Your task to perform on an android device: Add "alienware aurora" to the cart on target.com Image 0: 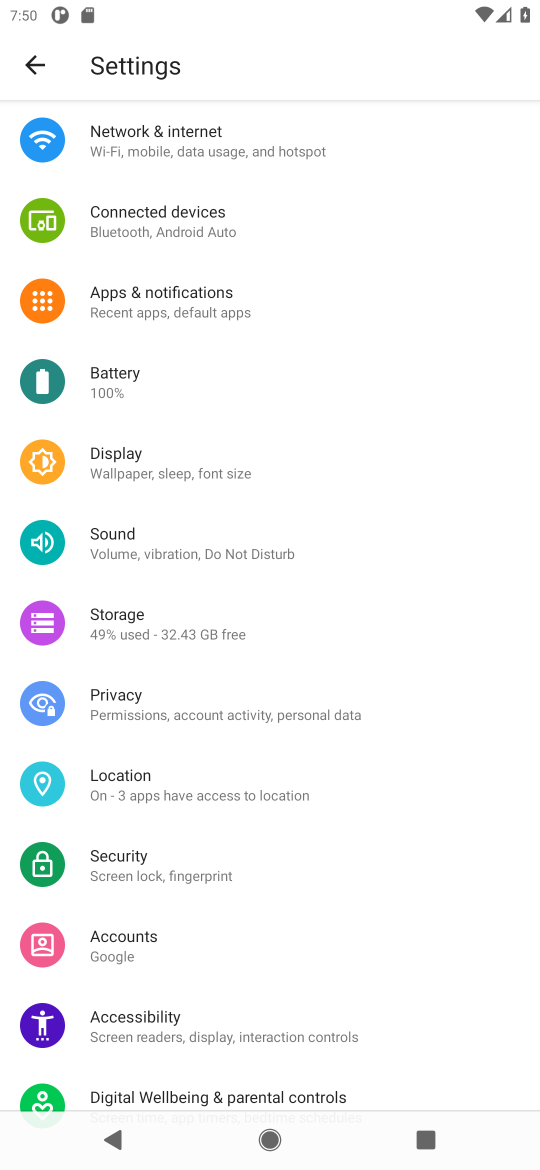
Step 0: press home button
Your task to perform on an android device: Add "alienware aurora" to the cart on target.com Image 1: 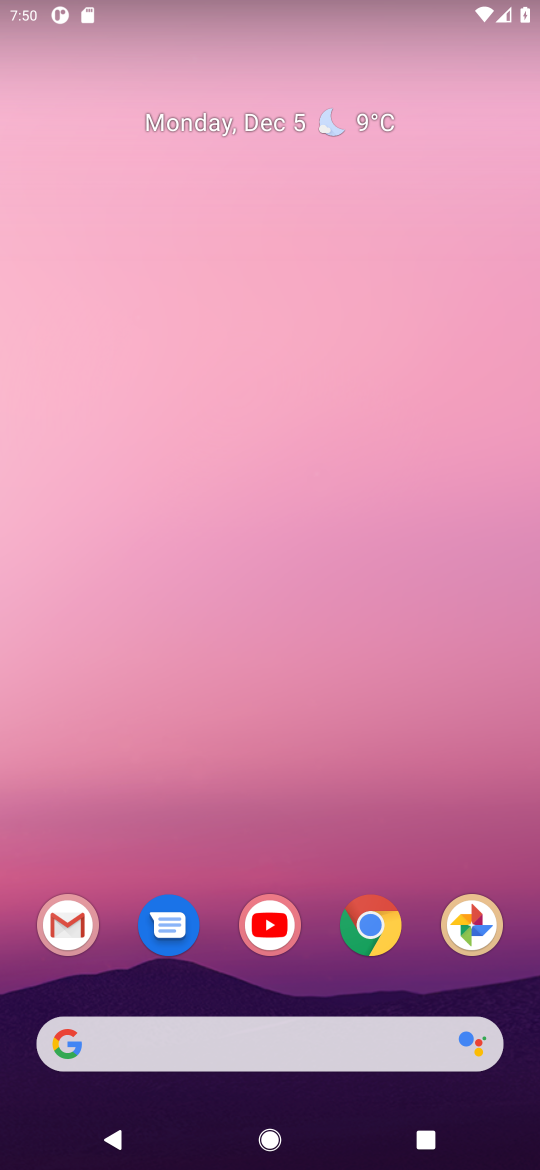
Step 1: click (378, 933)
Your task to perform on an android device: Add "alienware aurora" to the cart on target.com Image 2: 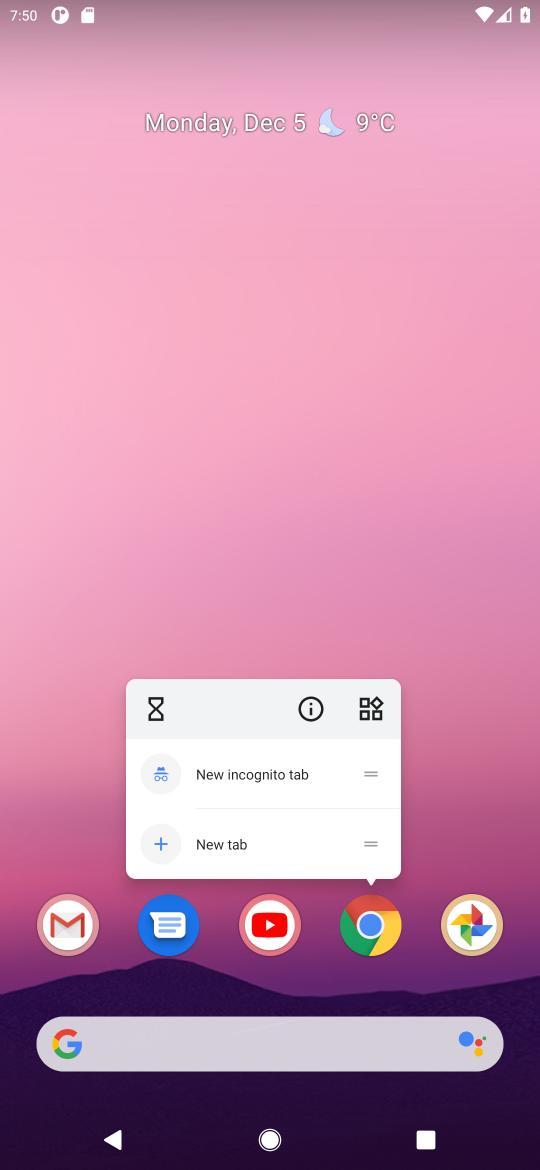
Step 2: click (378, 933)
Your task to perform on an android device: Add "alienware aurora" to the cart on target.com Image 3: 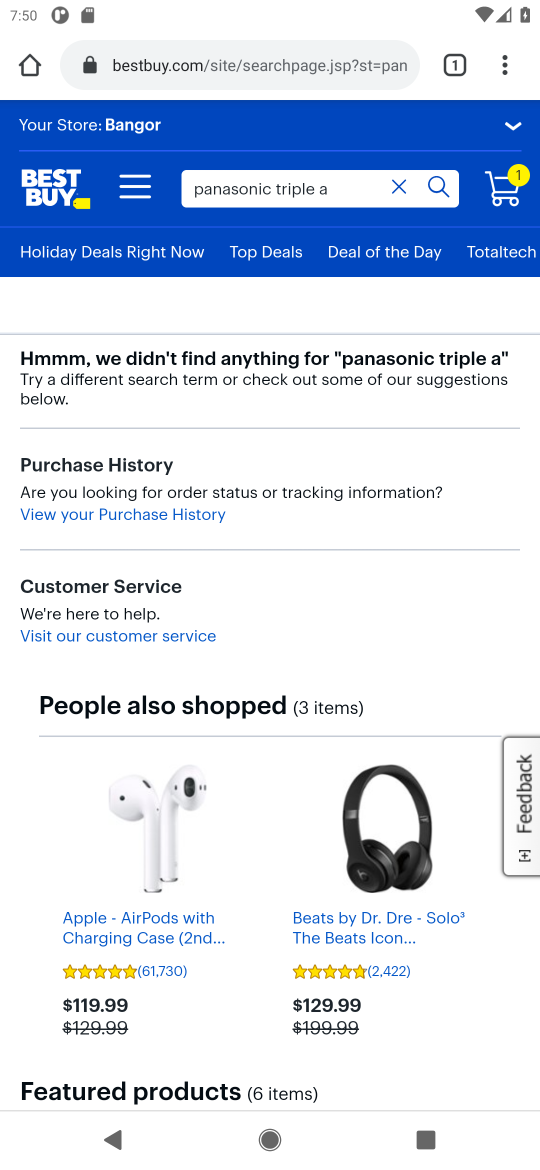
Step 3: click (274, 62)
Your task to perform on an android device: Add "alienware aurora" to the cart on target.com Image 4: 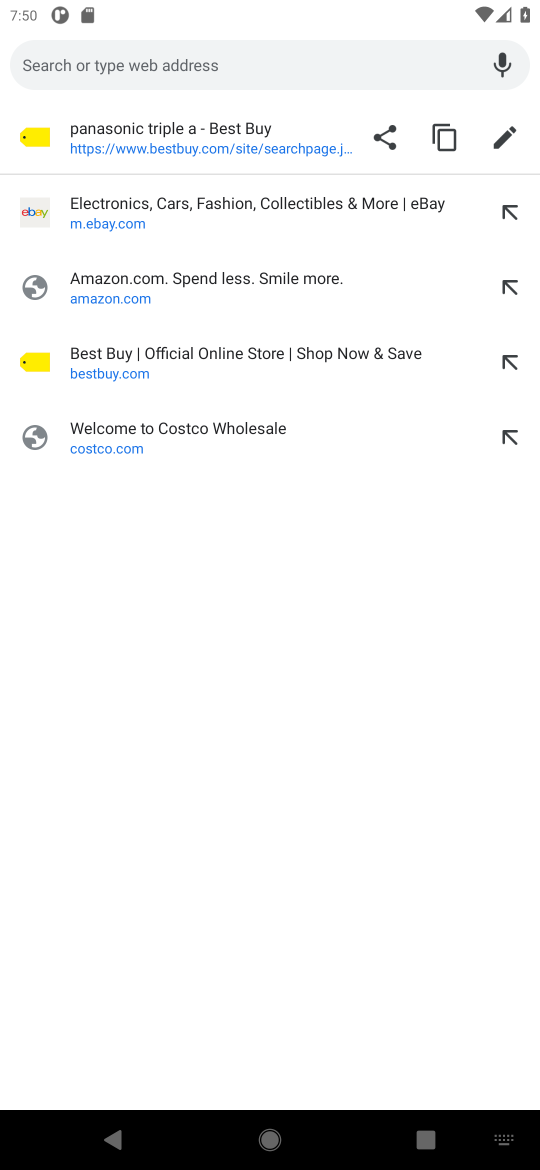
Step 4: type "target.com"
Your task to perform on an android device: Add "alienware aurora" to the cart on target.com Image 5: 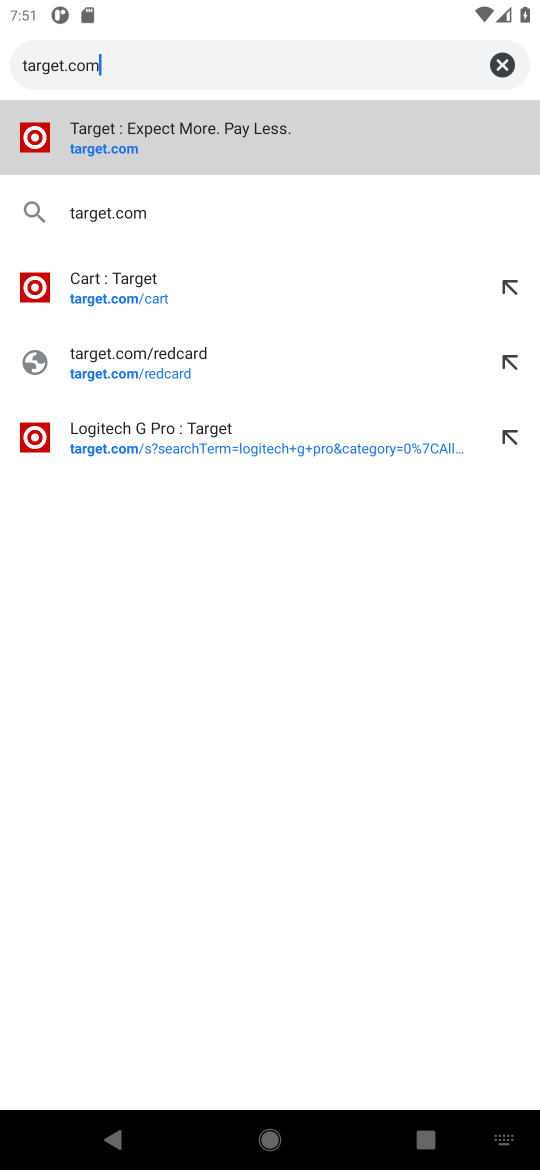
Step 5: click (102, 152)
Your task to perform on an android device: Add "alienware aurora" to the cart on target.com Image 6: 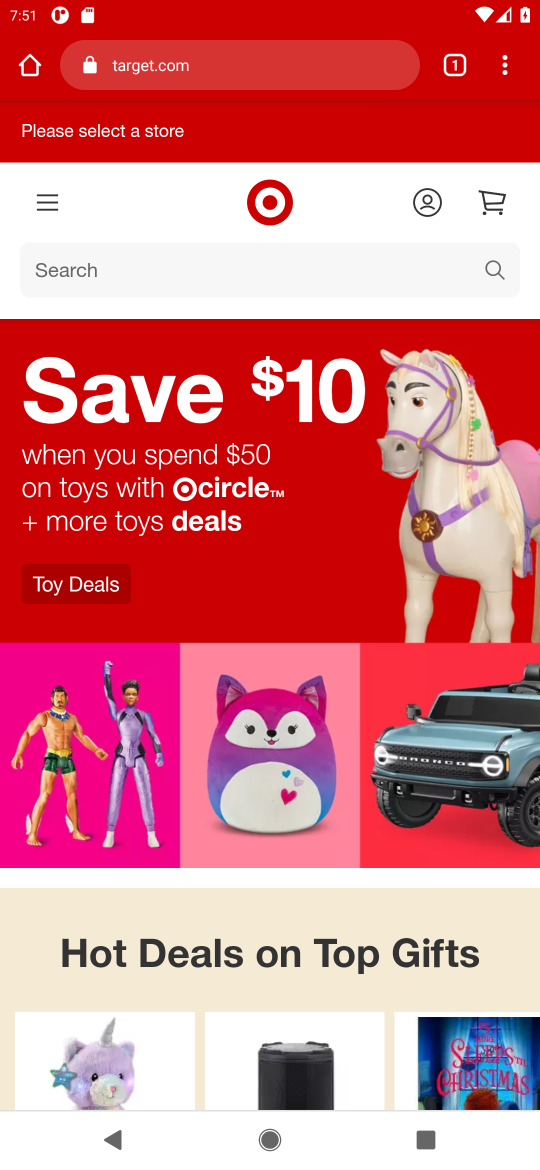
Step 6: click (57, 276)
Your task to perform on an android device: Add "alienware aurora" to the cart on target.com Image 7: 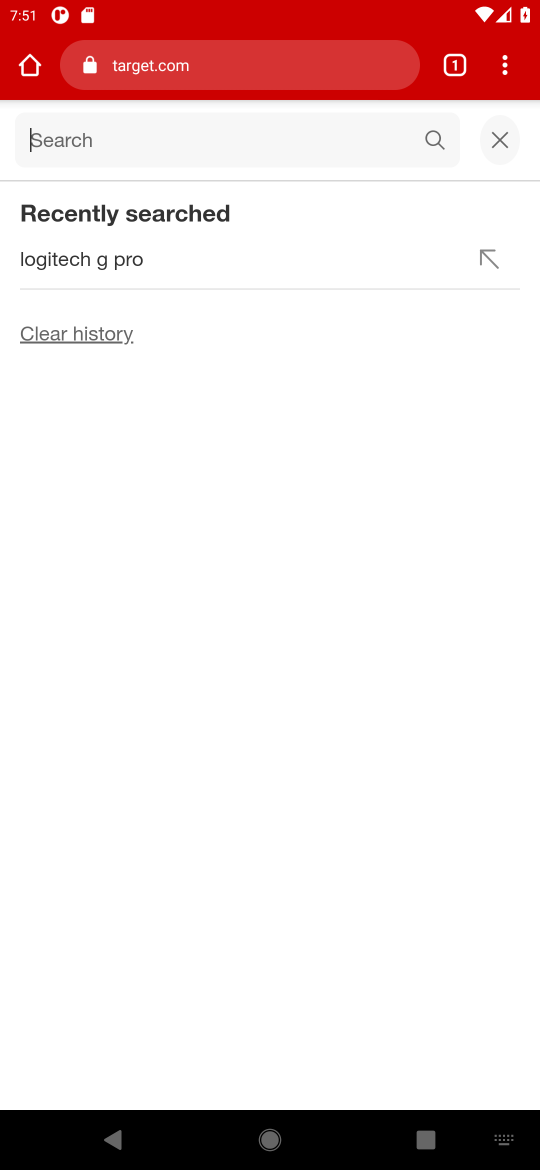
Step 7: type "alienware aurora"
Your task to perform on an android device: Add "alienware aurora" to the cart on target.com Image 8: 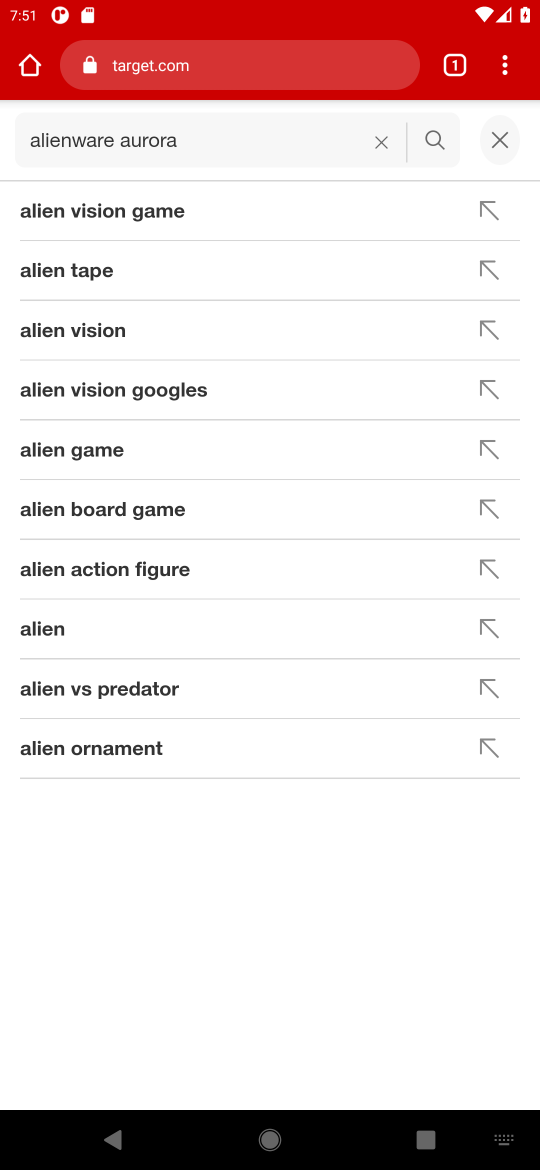
Step 8: click (432, 145)
Your task to perform on an android device: Add "alienware aurora" to the cart on target.com Image 9: 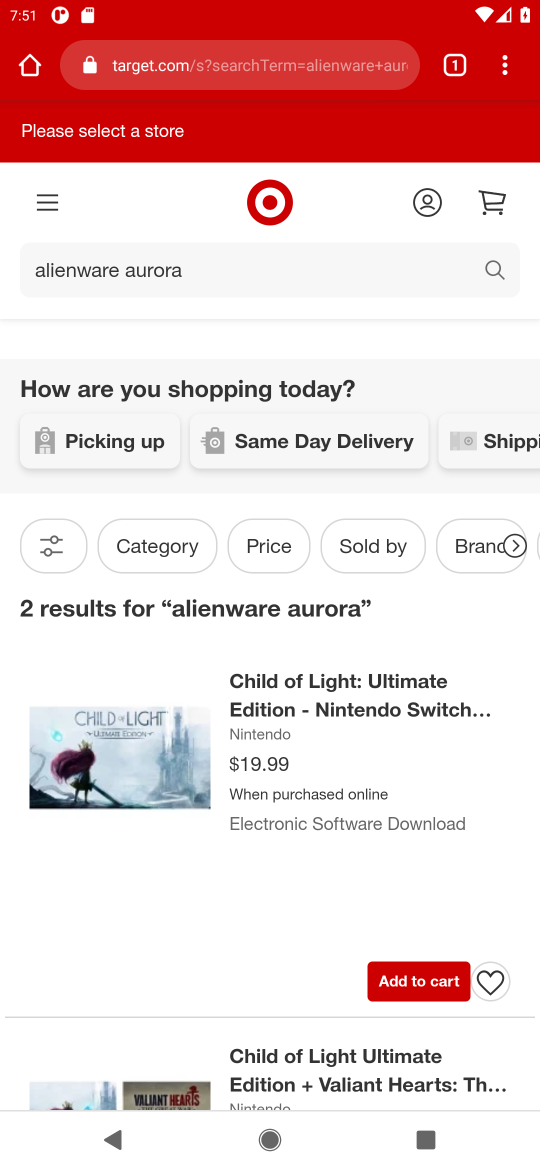
Step 9: task complete